Your task to perform on an android device: manage bookmarks in the chrome app Image 0: 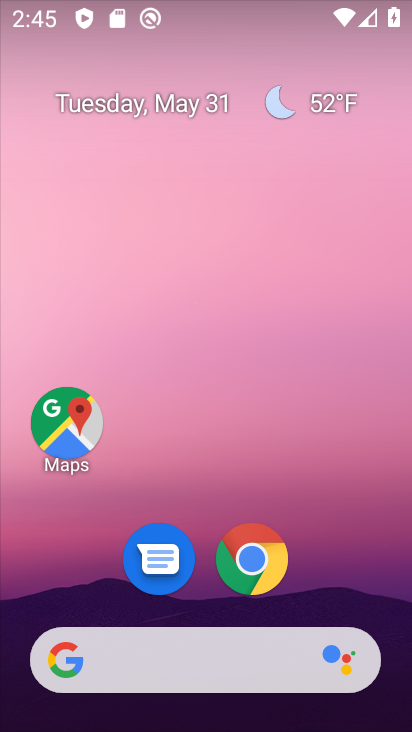
Step 0: click (228, 560)
Your task to perform on an android device: manage bookmarks in the chrome app Image 1: 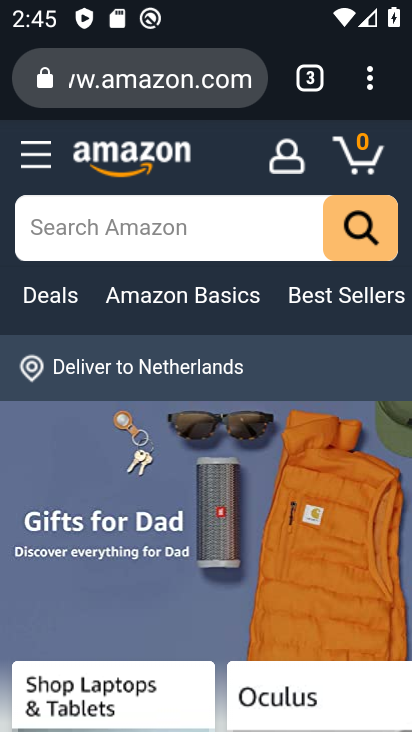
Step 1: click (376, 80)
Your task to perform on an android device: manage bookmarks in the chrome app Image 2: 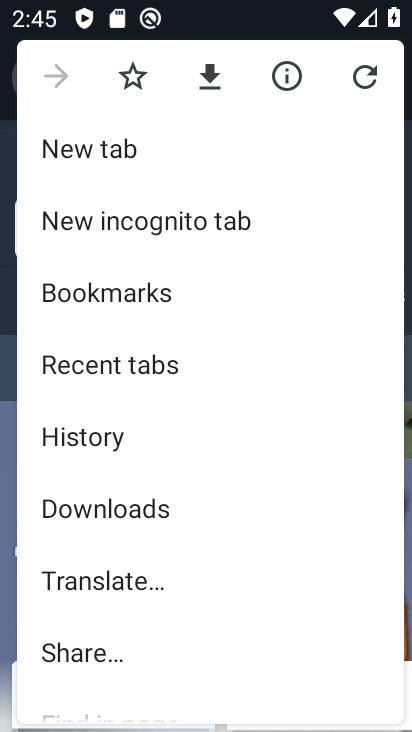
Step 2: click (89, 274)
Your task to perform on an android device: manage bookmarks in the chrome app Image 3: 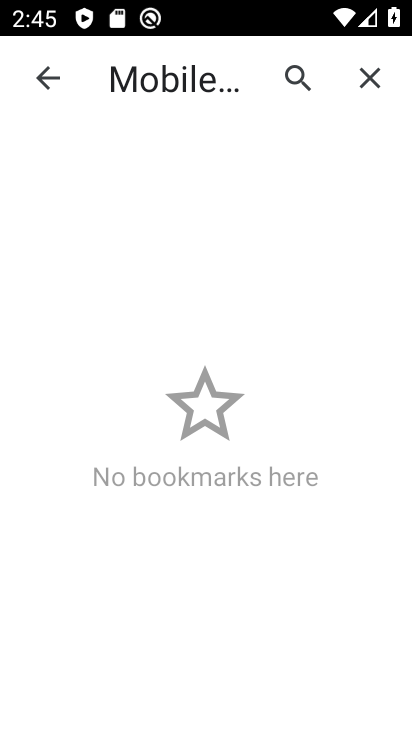
Step 3: task complete